Your task to perform on an android device: uninstall "Reddit" Image 0: 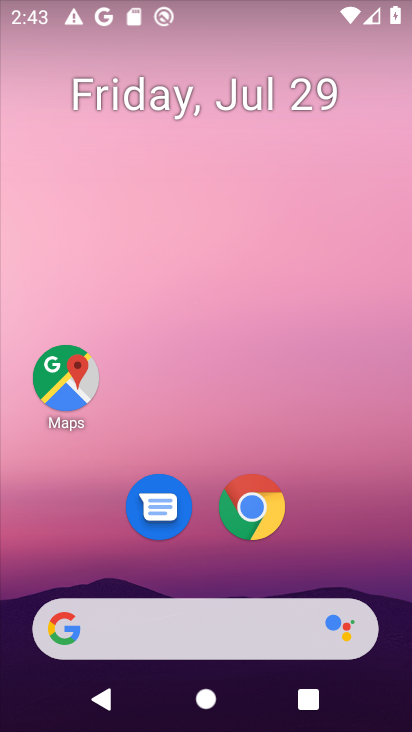
Step 0: press home button
Your task to perform on an android device: uninstall "Reddit" Image 1: 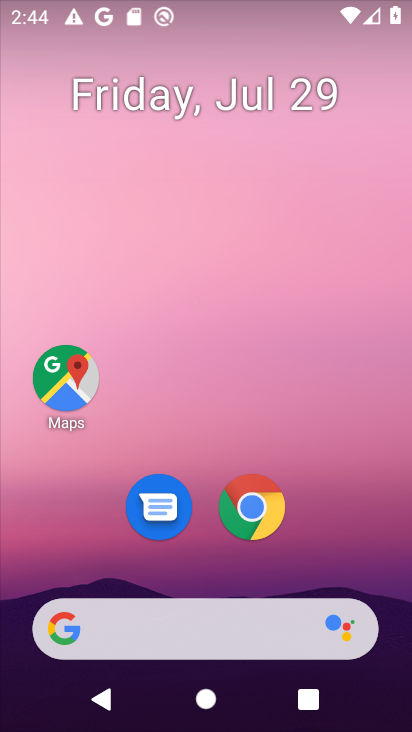
Step 1: click (237, 630)
Your task to perform on an android device: uninstall "Reddit" Image 2: 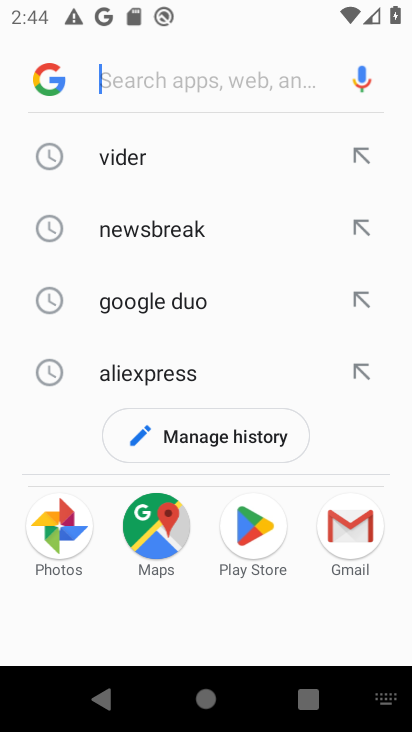
Step 2: type "reddit"
Your task to perform on an android device: uninstall "Reddit" Image 3: 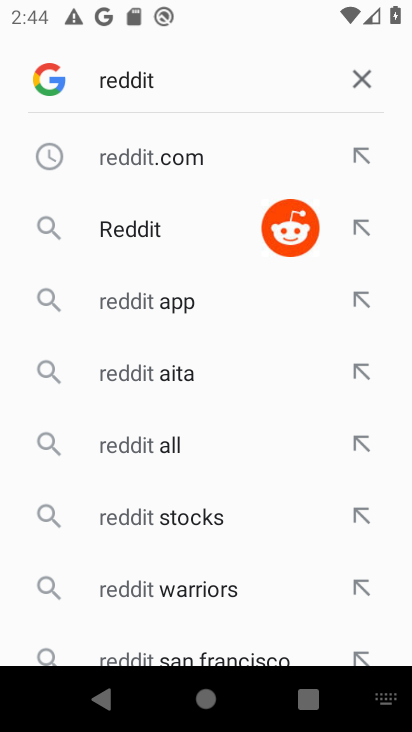
Step 3: click (196, 173)
Your task to perform on an android device: uninstall "Reddit" Image 4: 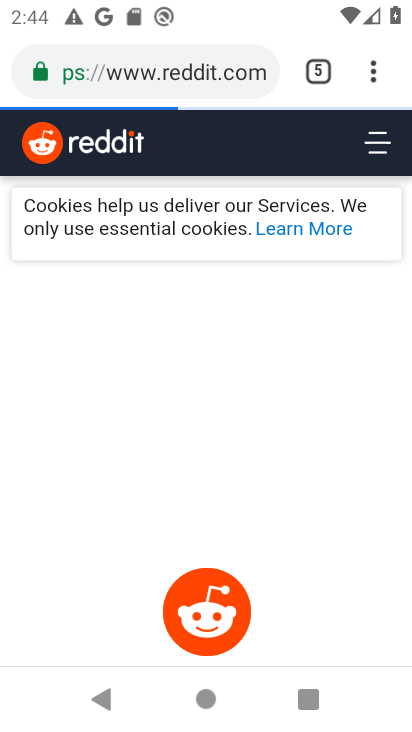
Step 4: task complete